Your task to perform on an android device: Open wifi settings Image 0: 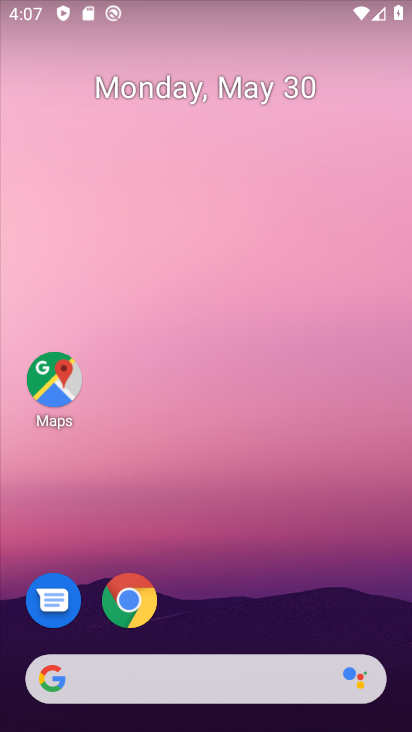
Step 0: drag from (233, 643) to (129, 134)
Your task to perform on an android device: Open wifi settings Image 1: 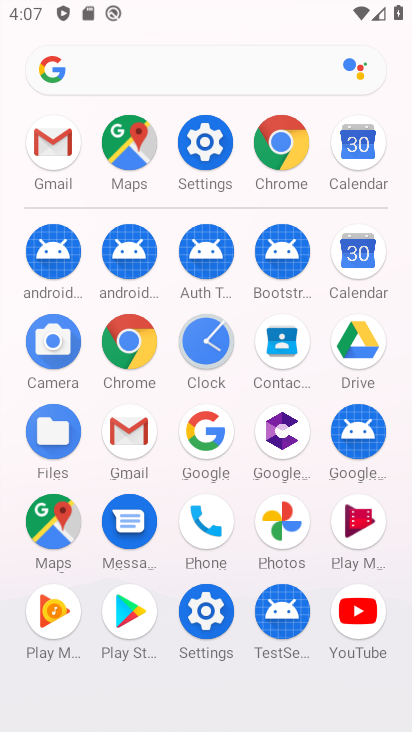
Step 1: click (212, 137)
Your task to perform on an android device: Open wifi settings Image 2: 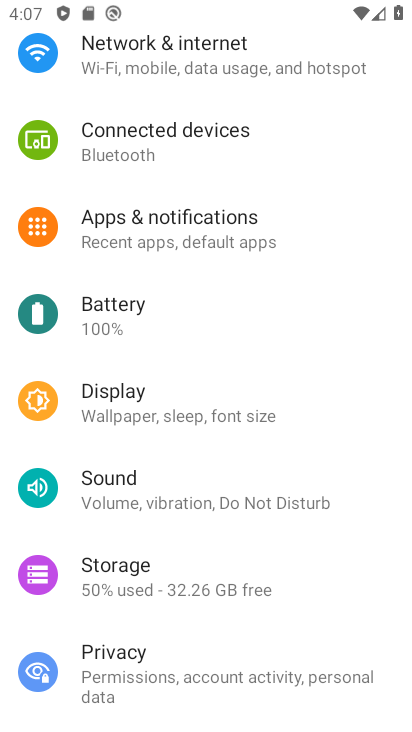
Step 2: drag from (209, 108) to (209, 469)
Your task to perform on an android device: Open wifi settings Image 3: 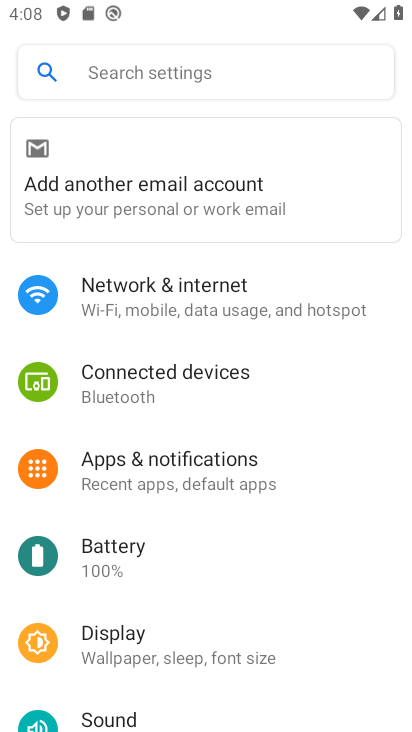
Step 3: click (193, 302)
Your task to perform on an android device: Open wifi settings Image 4: 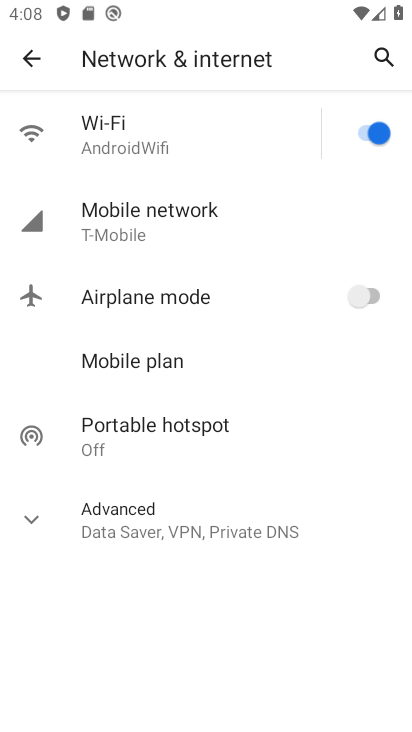
Step 4: click (116, 149)
Your task to perform on an android device: Open wifi settings Image 5: 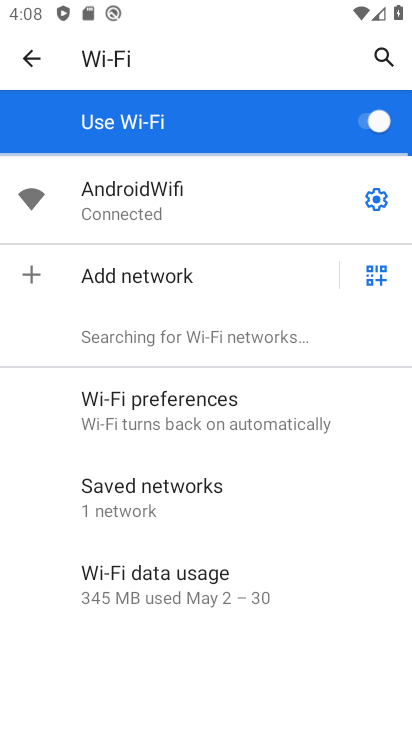
Step 5: task complete